Your task to perform on an android device: Go to privacy settings Image 0: 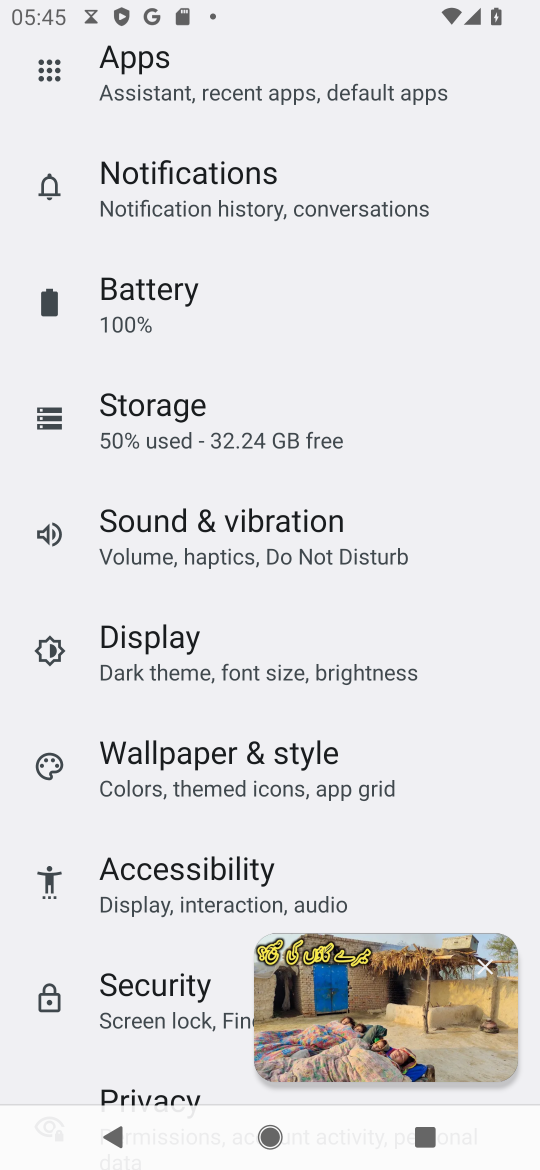
Step 0: click (485, 964)
Your task to perform on an android device: Go to privacy settings Image 1: 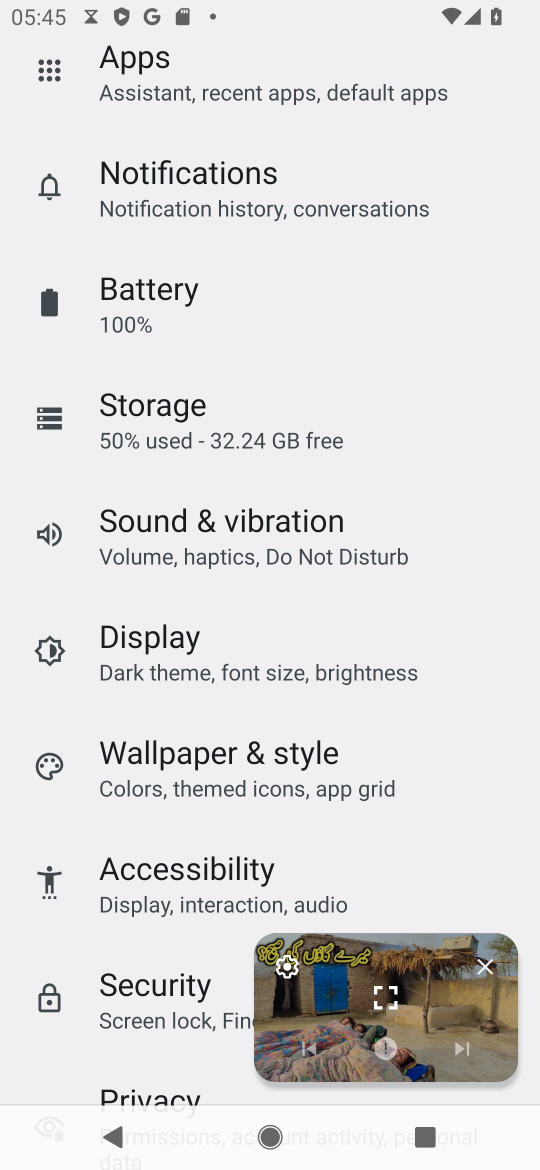
Step 1: click (485, 964)
Your task to perform on an android device: Go to privacy settings Image 2: 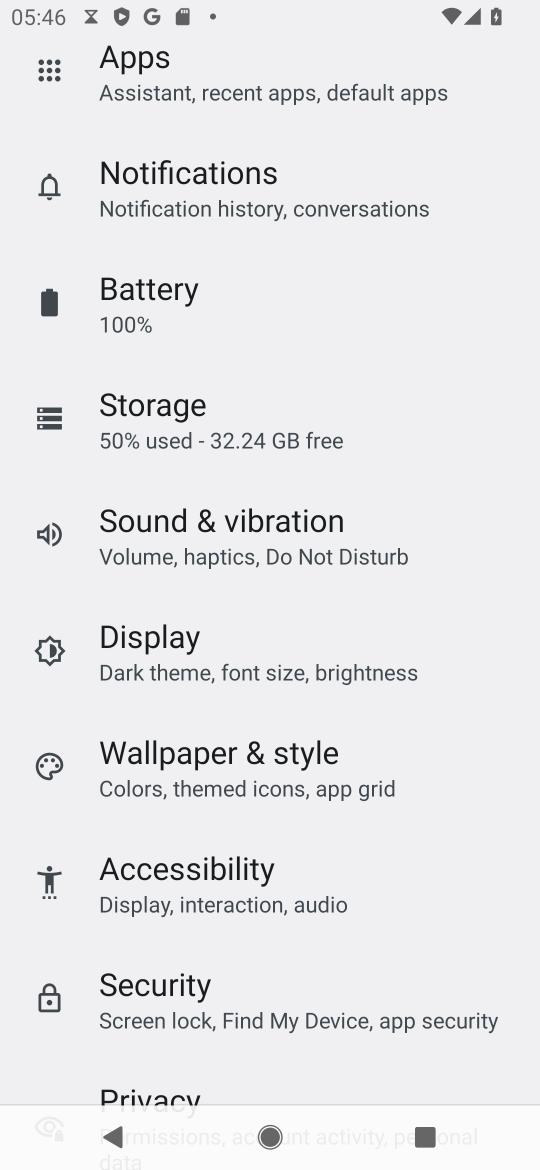
Step 2: press home button
Your task to perform on an android device: Go to privacy settings Image 3: 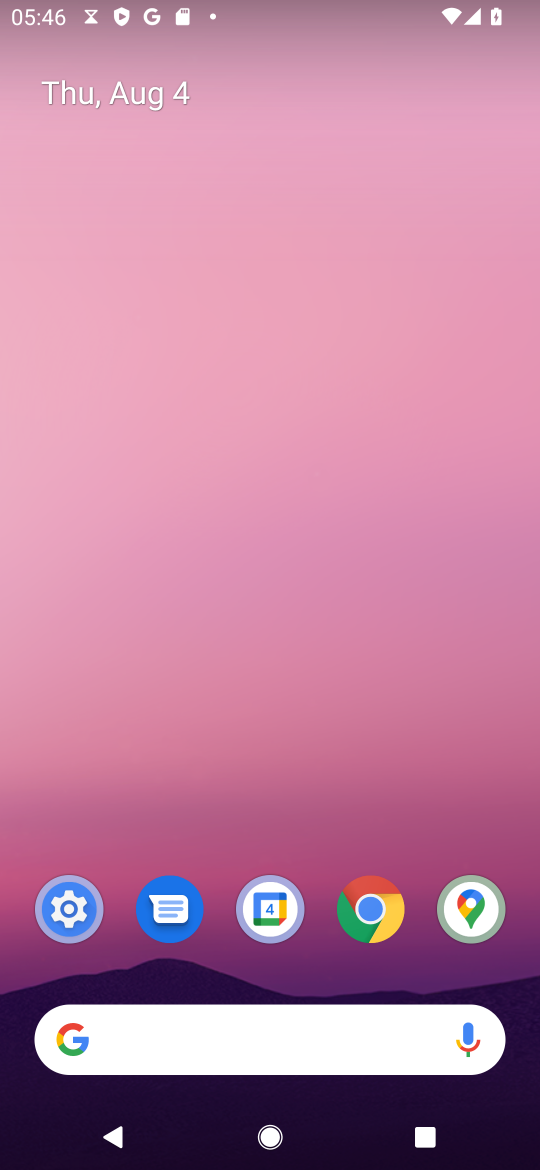
Step 3: click (84, 898)
Your task to perform on an android device: Go to privacy settings Image 4: 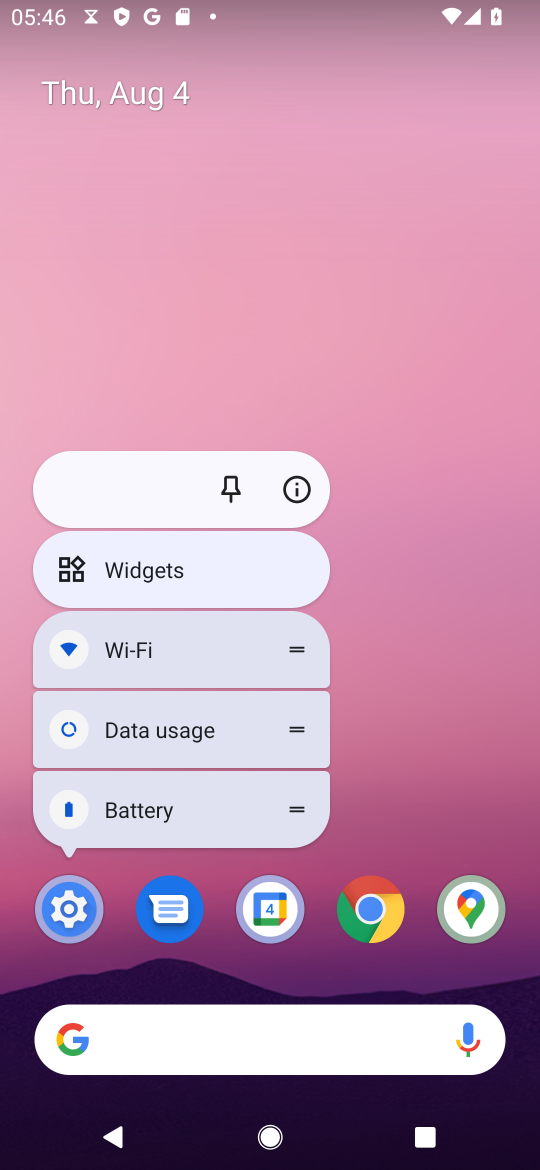
Step 4: click (61, 916)
Your task to perform on an android device: Go to privacy settings Image 5: 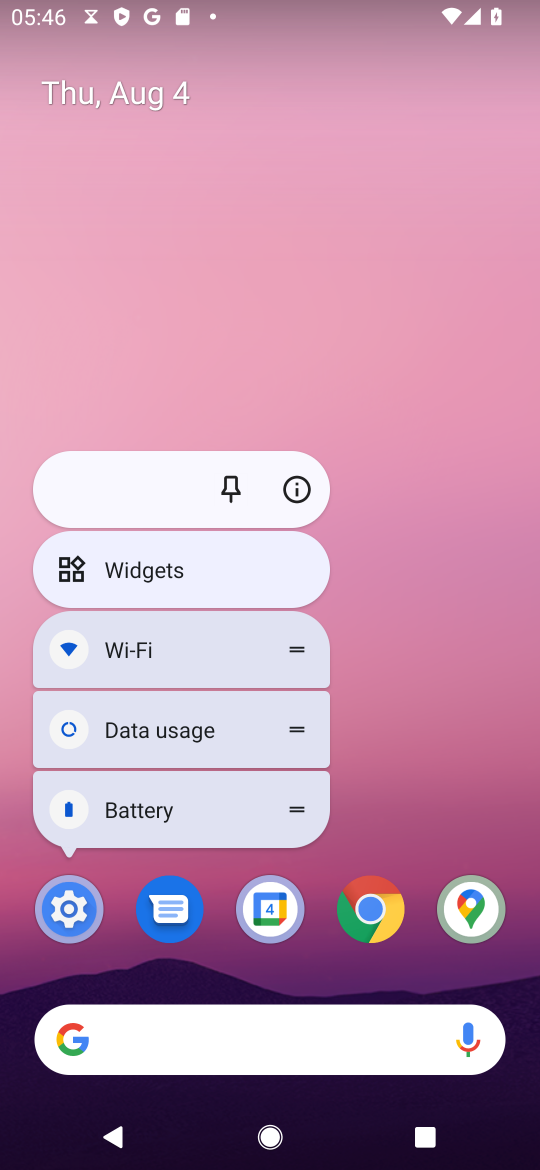
Step 5: click (68, 909)
Your task to perform on an android device: Go to privacy settings Image 6: 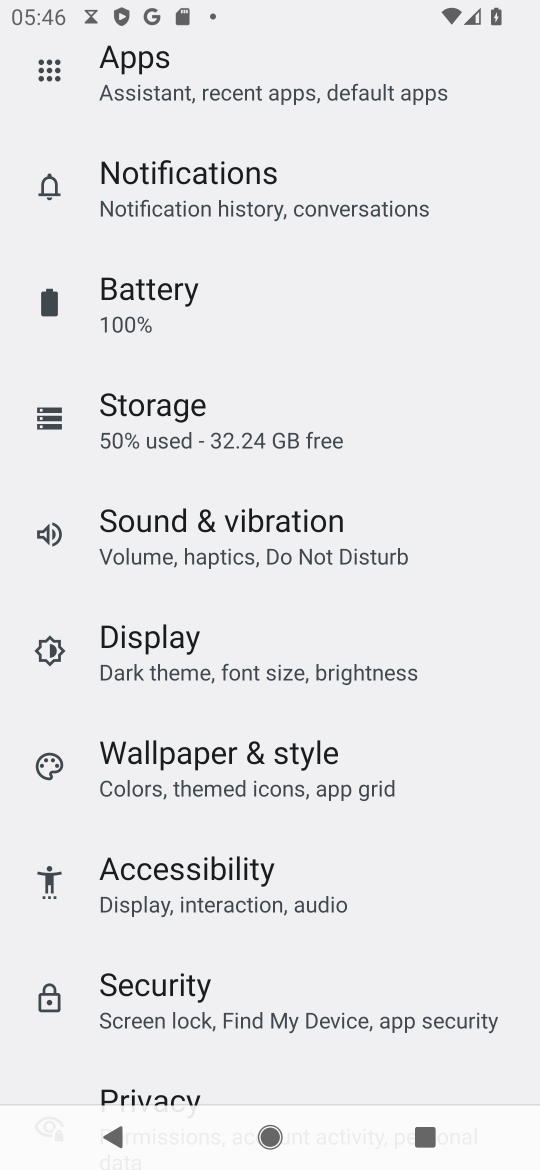
Step 6: drag from (394, 355) to (309, 957)
Your task to perform on an android device: Go to privacy settings Image 7: 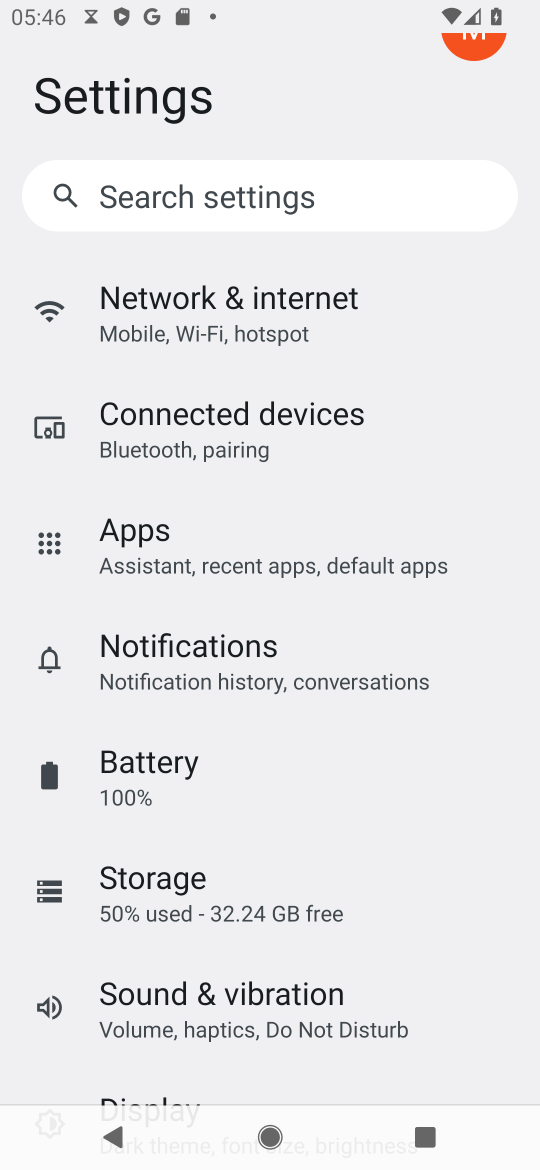
Step 7: drag from (268, 881) to (400, 393)
Your task to perform on an android device: Go to privacy settings Image 8: 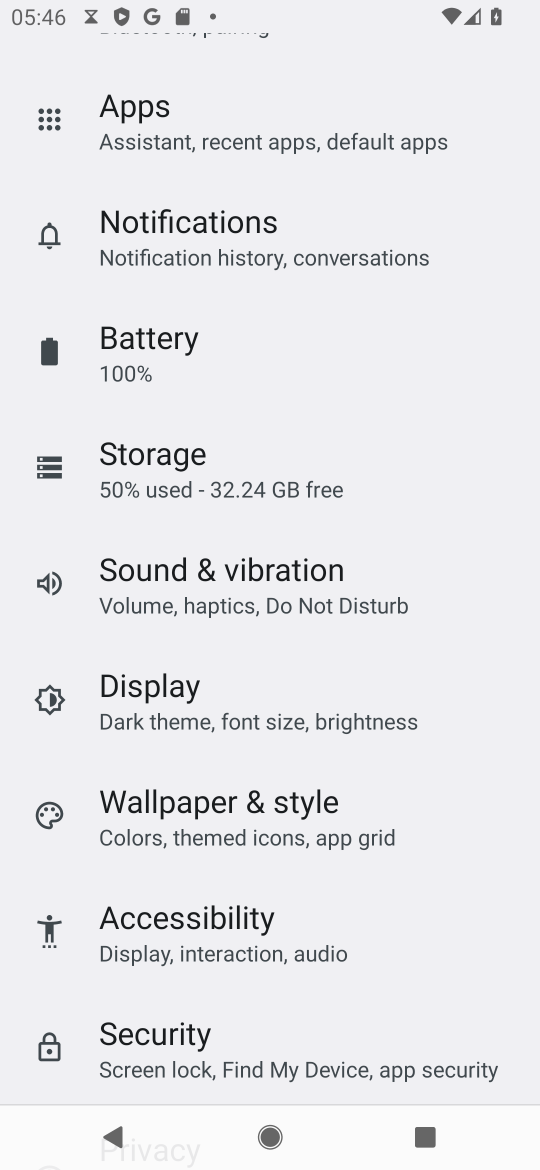
Step 8: drag from (282, 988) to (405, 402)
Your task to perform on an android device: Go to privacy settings Image 9: 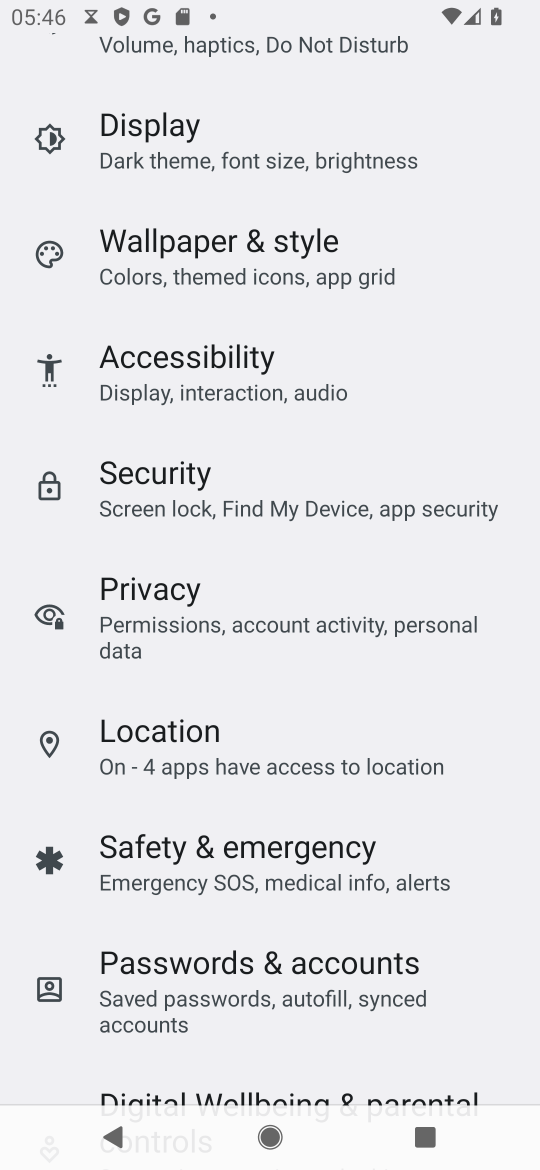
Step 9: click (182, 612)
Your task to perform on an android device: Go to privacy settings Image 10: 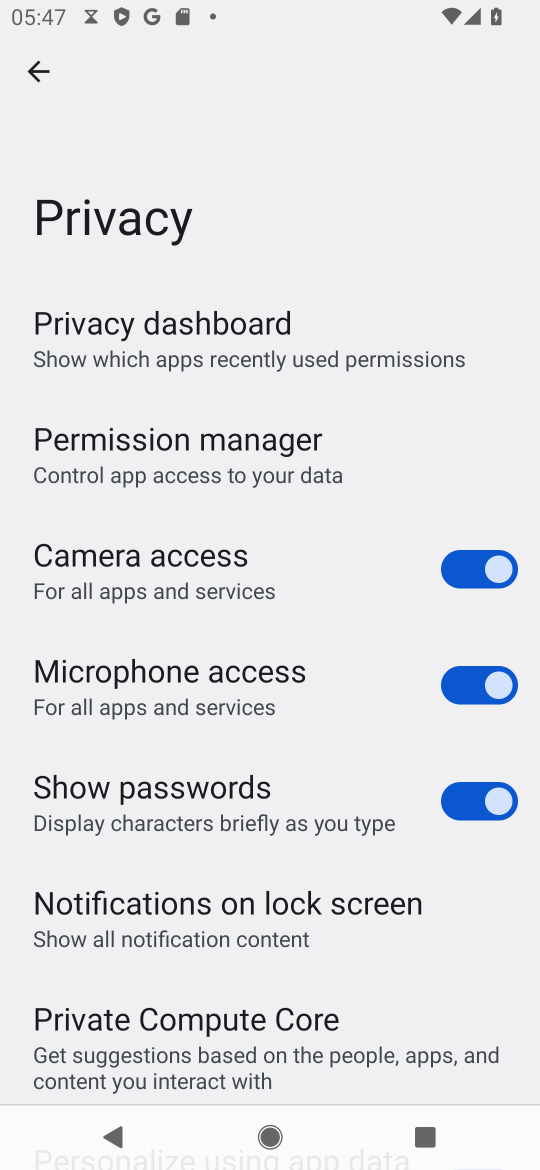
Step 10: task complete